Your task to perform on an android device: turn off notifications in google photos Image 0: 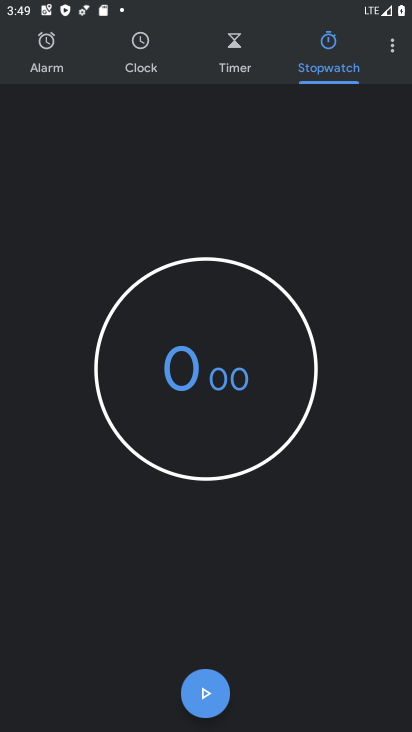
Step 0: press home button
Your task to perform on an android device: turn off notifications in google photos Image 1: 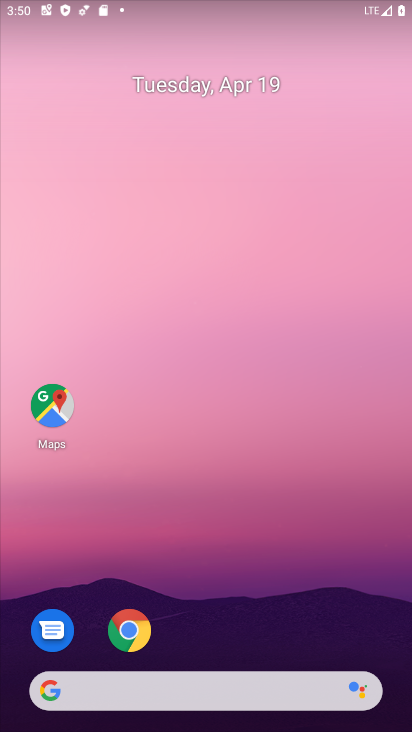
Step 1: drag from (201, 723) to (186, 118)
Your task to perform on an android device: turn off notifications in google photos Image 2: 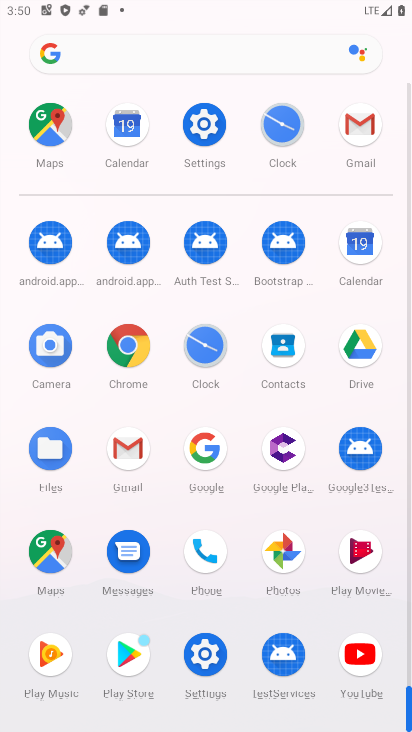
Step 2: click (284, 552)
Your task to perform on an android device: turn off notifications in google photos Image 3: 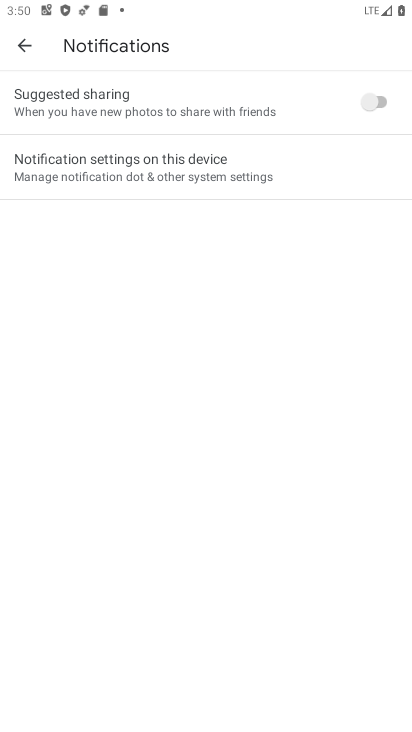
Step 3: click (124, 173)
Your task to perform on an android device: turn off notifications in google photos Image 4: 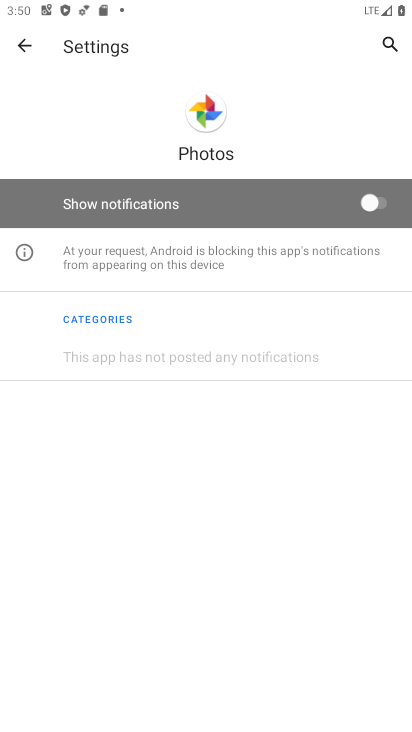
Step 4: task complete